Your task to perform on an android device: turn on translation in the chrome app Image 0: 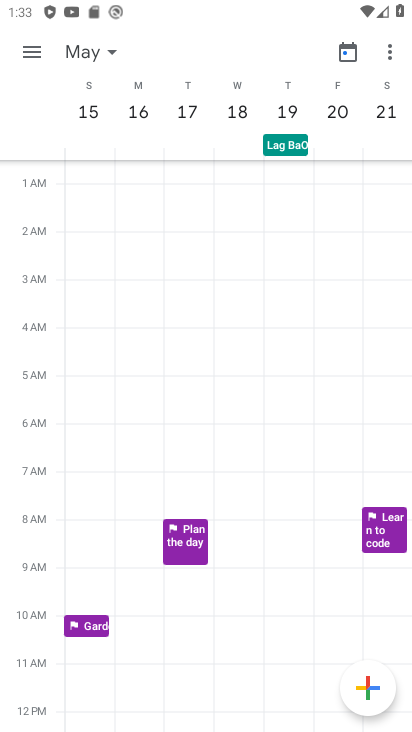
Step 0: press home button
Your task to perform on an android device: turn on translation in the chrome app Image 1: 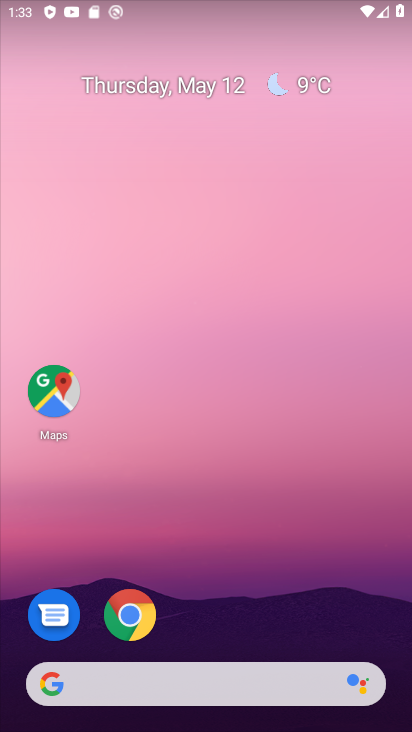
Step 1: click (148, 625)
Your task to perform on an android device: turn on translation in the chrome app Image 2: 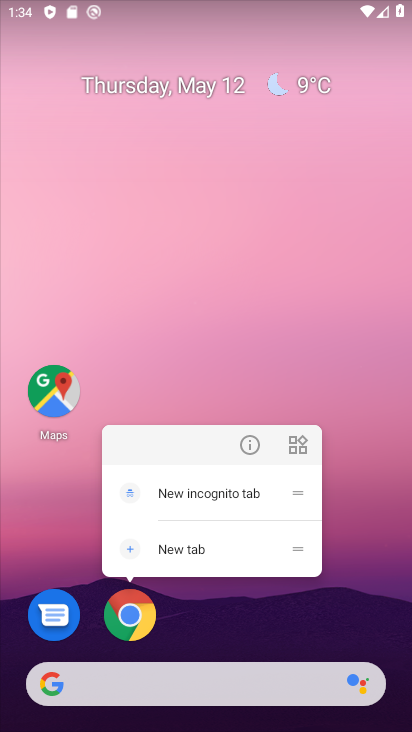
Step 2: click (143, 636)
Your task to perform on an android device: turn on translation in the chrome app Image 3: 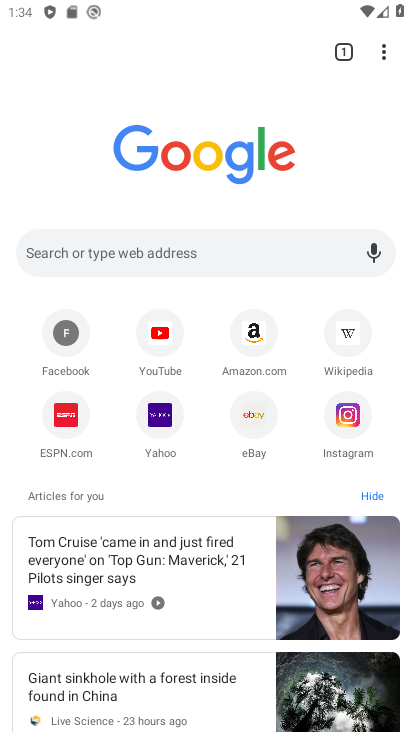
Step 3: drag from (389, 61) to (218, 439)
Your task to perform on an android device: turn on translation in the chrome app Image 4: 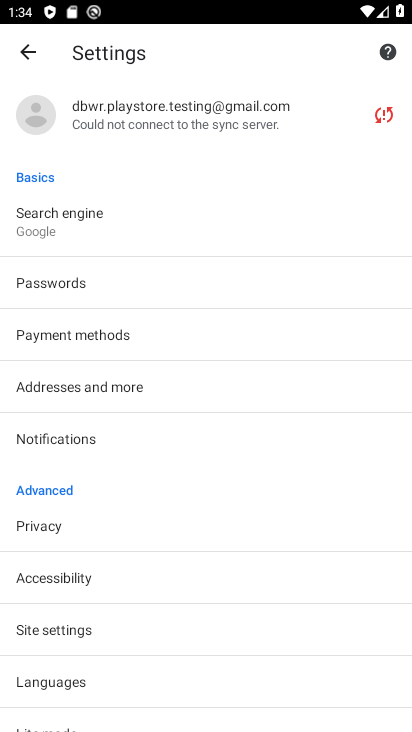
Step 4: click (78, 685)
Your task to perform on an android device: turn on translation in the chrome app Image 5: 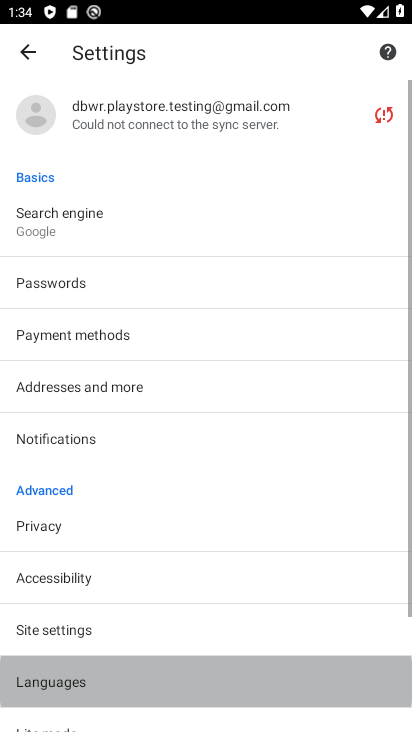
Step 5: click (78, 685)
Your task to perform on an android device: turn on translation in the chrome app Image 6: 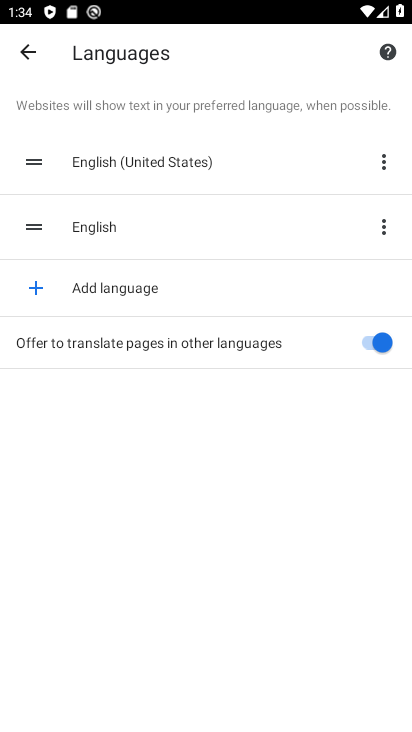
Step 6: task complete